Your task to perform on an android device: open sync settings in chrome Image 0: 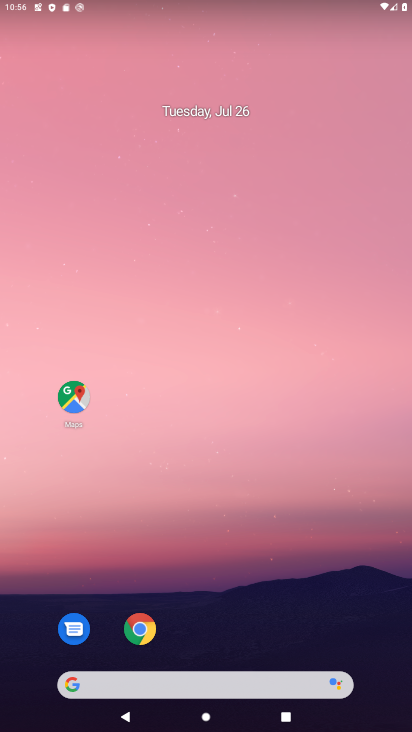
Step 0: click (126, 640)
Your task to perform on an android device: open sync settings in chrome Image 1: 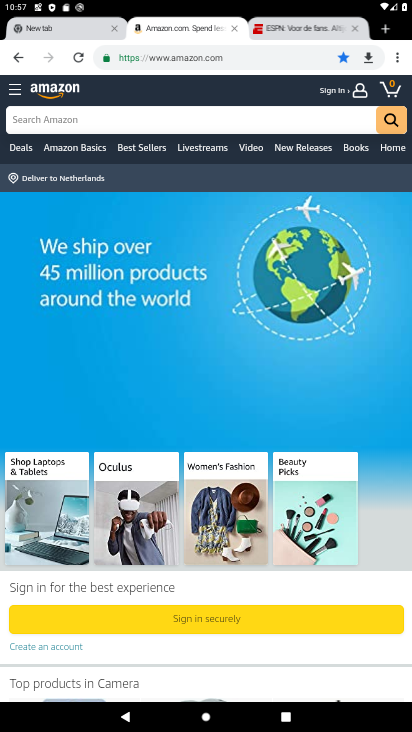
Step 1: click (388, 96)
Your task to perform on an android device: open sync settings in chrome Image 2: 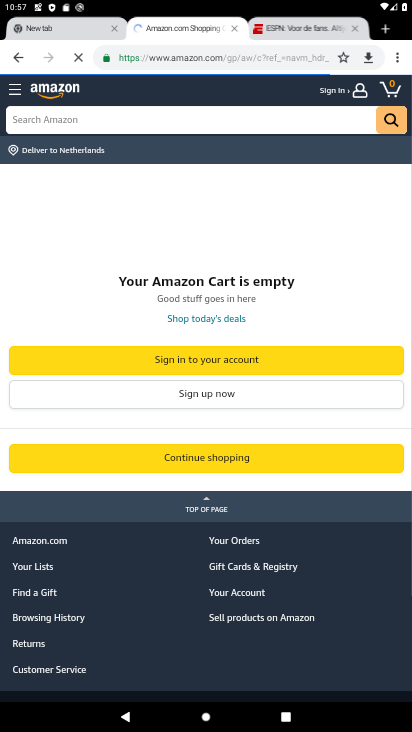
Step 2: click (397, 54)
Your task to perform on an android device: open sync settings in chrome Image 3: 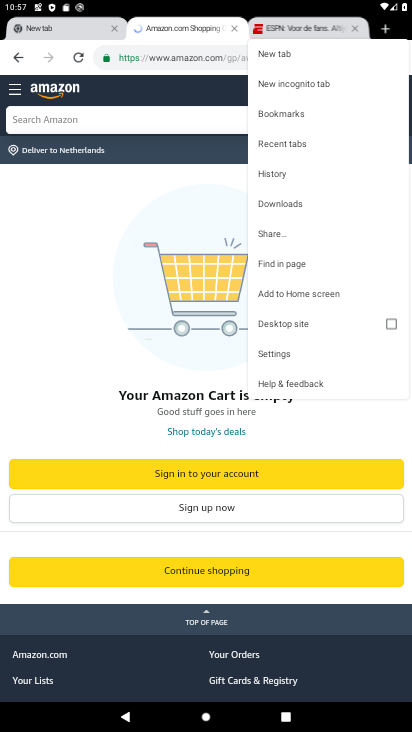
Step 3: click (281, 349)
Your task to perform on an android device: open sync settings in chrome Image 4: 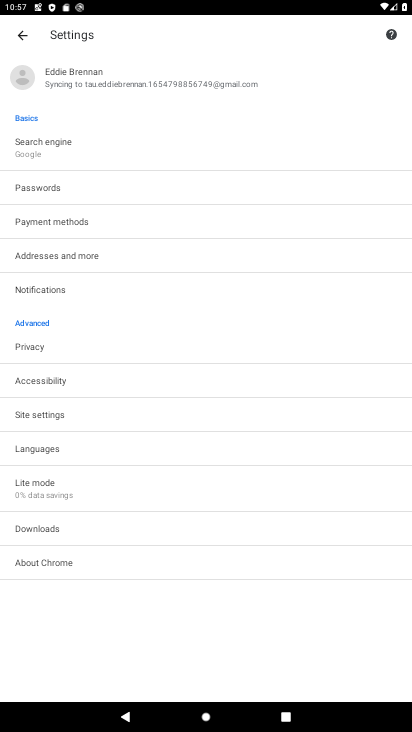
Step 4: click (85, 75)
Your task to perform on an android device: open sync settings in chrome Image 5: 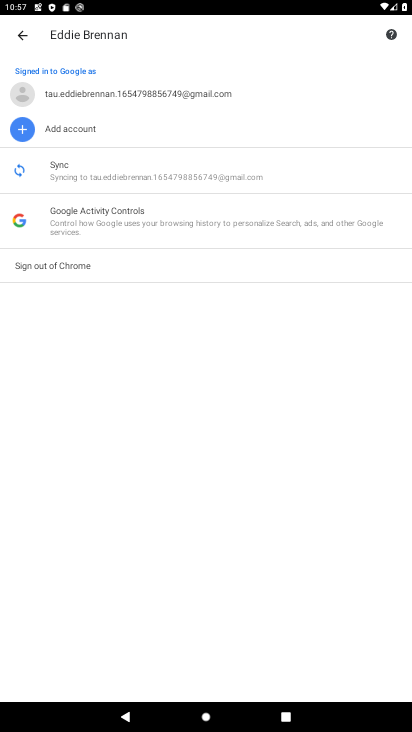
Step 5: task complete